Your task to perform on an android device: toggle show notifications on the lock screen Image 0: 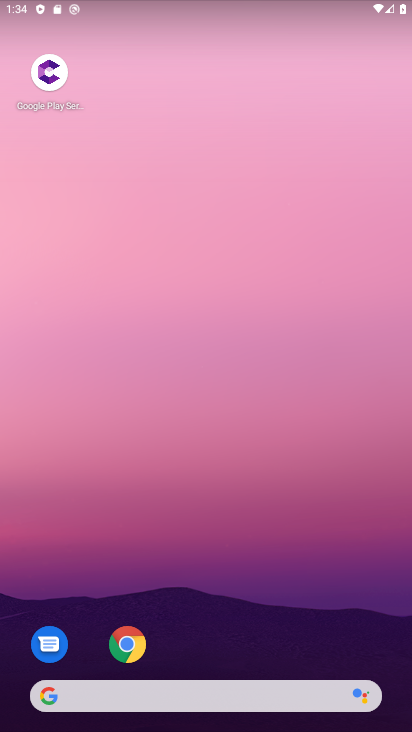
Step 0: drag from (270, 587) to (145, 0)
Your task to perform on an android device: toggle show notifications on the lock screen Image 1: 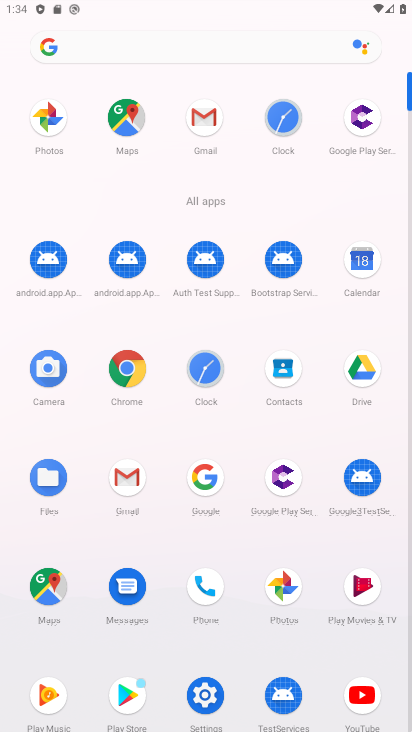
Step 1: click (209, 701)
Your task to perform on an android device: toggle show notifications on the lock screen Image 2: 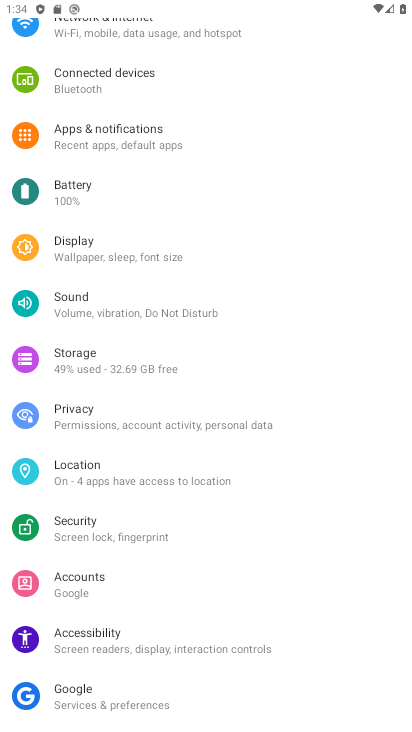
Step 2: click (186, 149)
Your task to perform on an android device: toggle show notifications on the lock screen Image 3: 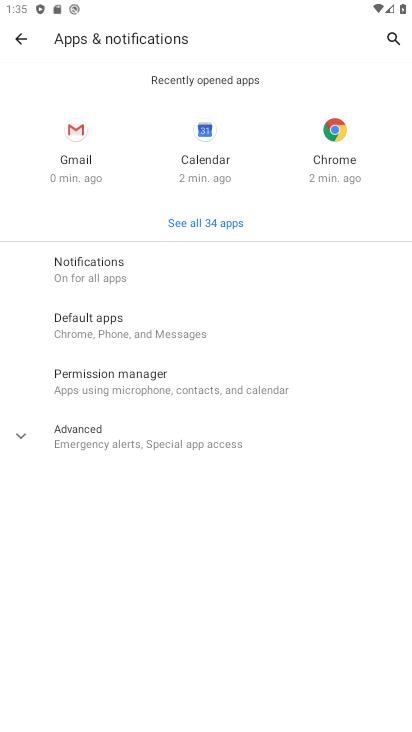
Step 3: click (130, 273)
Your task to perform on an android device: toggle show notifications on the lock screen Image 4: 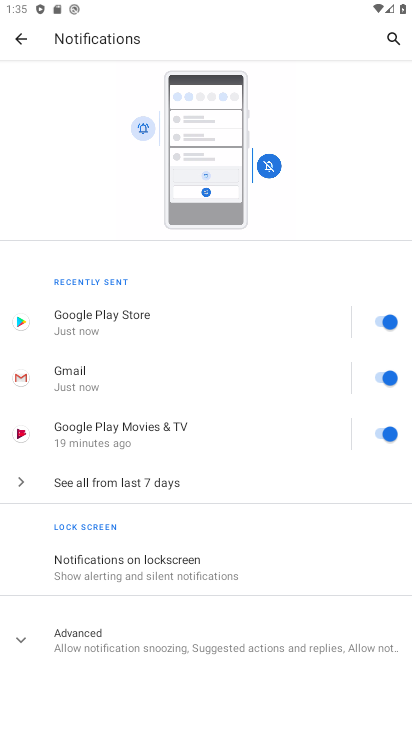
Step 4: click (102, 574)
Your task to perform on an android device: toggle show notifications on the lock screen Image 5: 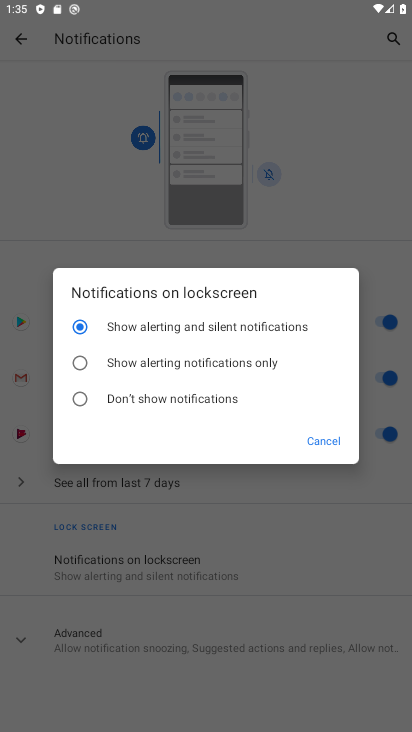
Step 5: click (169, 407)
Your task to perform on an android device: toggle show notifications on the lock screen Image 6: 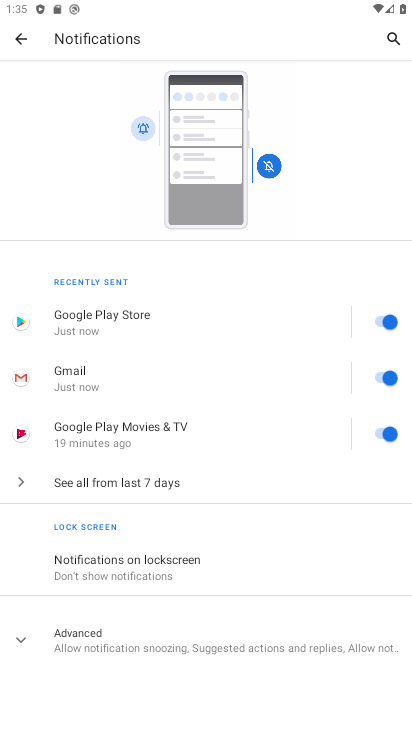
Step 6: task complete